Your task to perform on an android device: set an alarm Image 0: 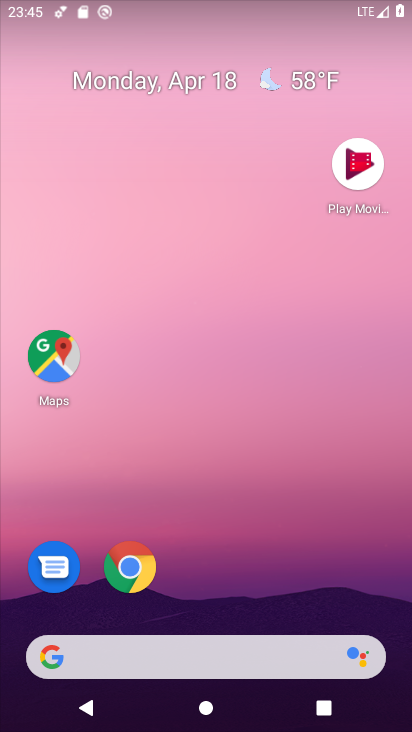
Step 0: drag from (215, 346) to (271, 94)
Your task to perform on an android device: set an alarm Image 1: 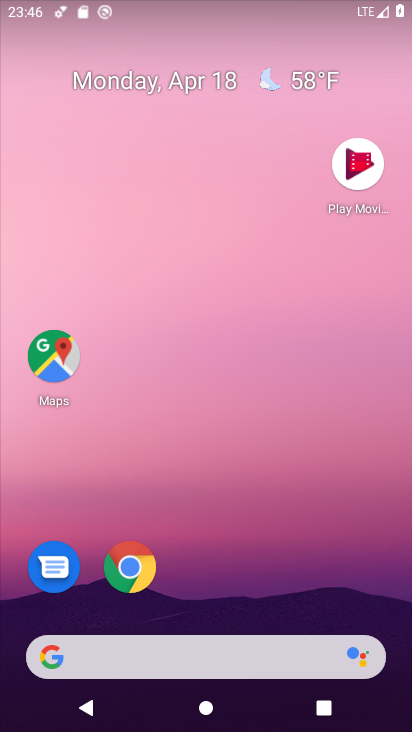
Step 1: drag from (187, 601) to (235, 36)
Your task to perform on an android device: set an alarm Image 2: 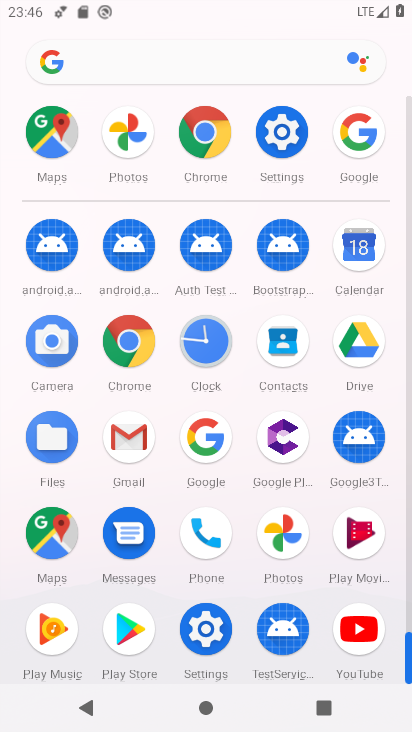
Step 2: click (196, 351)
Your task to perform on an android device: set an alarm Image 3: 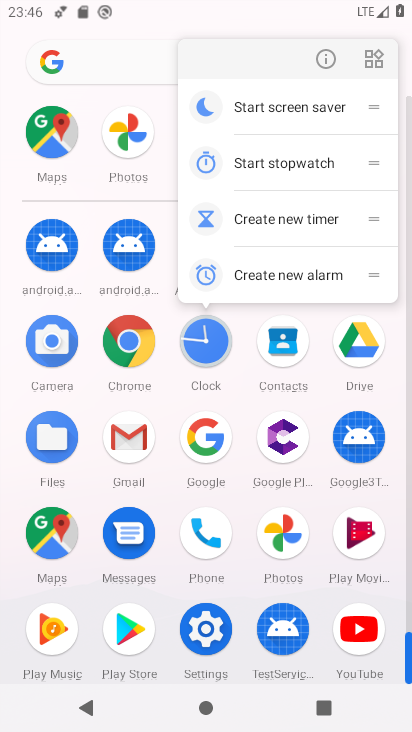
Step 3: click (334, 59)
Your task to perform on an android device: set an alarm Image 4: 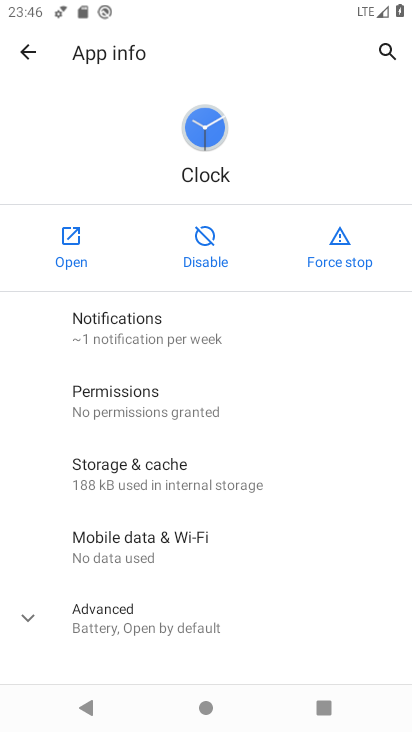
Step 4: click (80, 251)
Your task to perform on an android device: set an alarm Image 5: 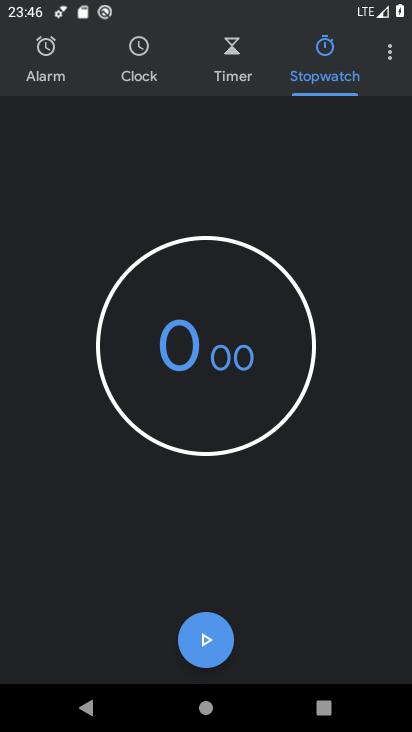
Step 5: click (385, 68)
Your task to perform on an android device: set an alarm Image 6: 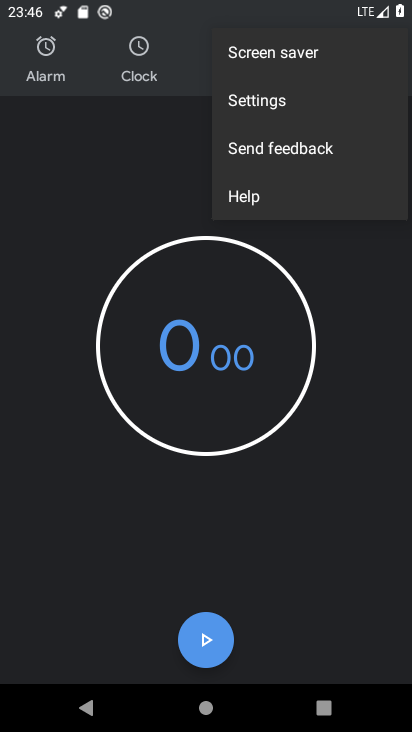
Step 6: click (288, 105)
Your task to perform on an android device: set an alarm Image 7: 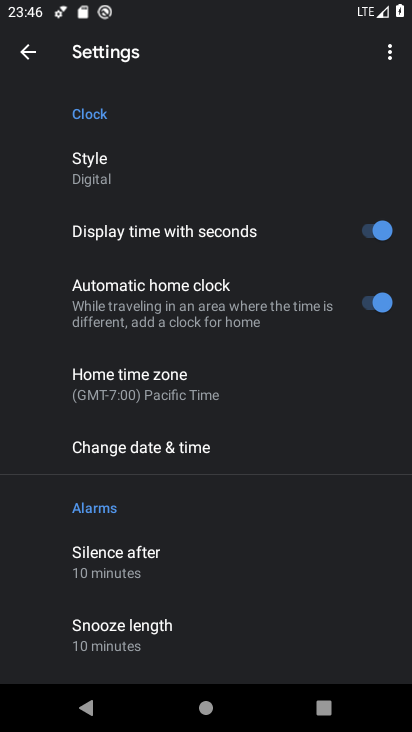
Step 7: press back button
Your task to perform on an android device: set an alarm Image 8: 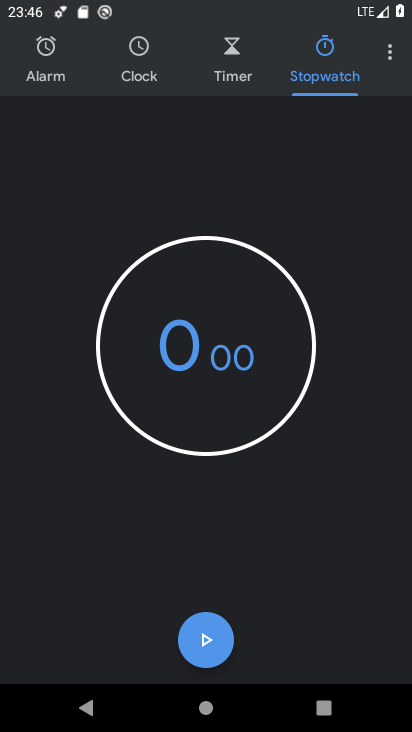
Step 8: click (57, 56)
Your task to perform on an android device: set an alarm Image 9: 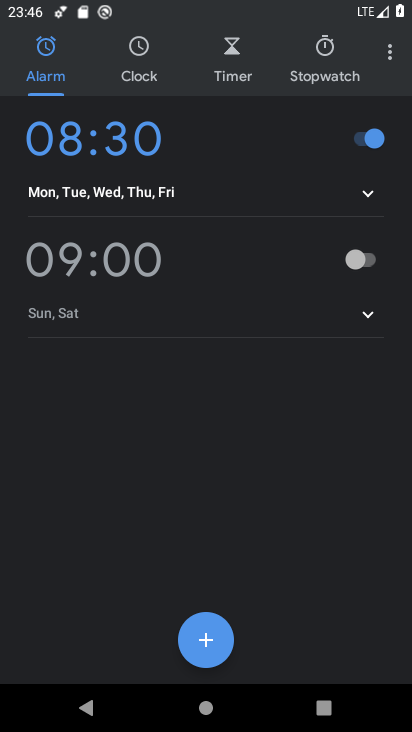
Step 9: click (364, 253)
Your task to perform on an android device: set an alarm Image 10: 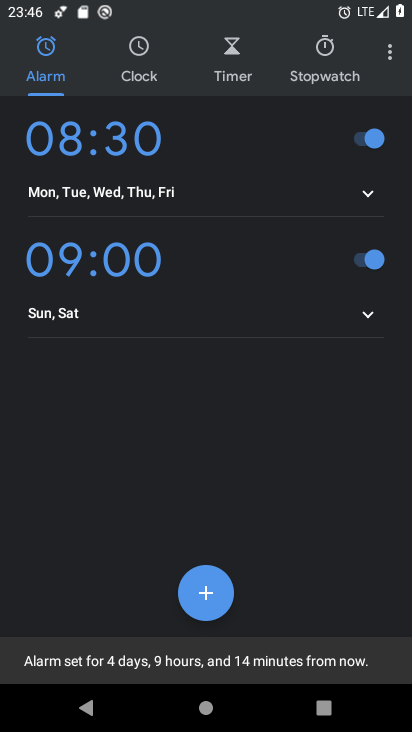
Step 10: task complete